Your task to perform on an android device: What's the weather? Image 0: 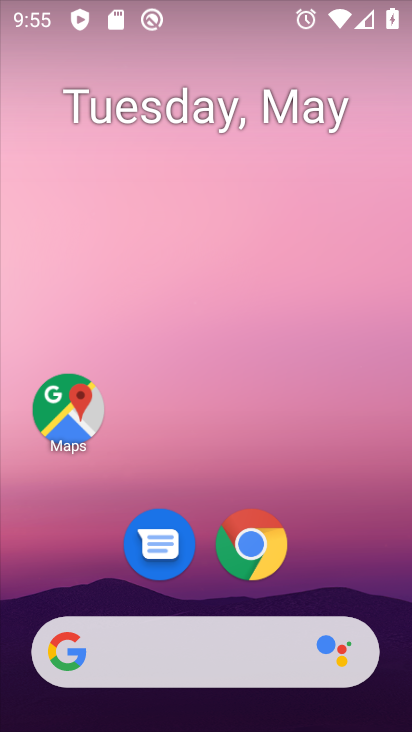
Step 0: press home button
Your task to perform on an android device: What's the weather? Image 1: 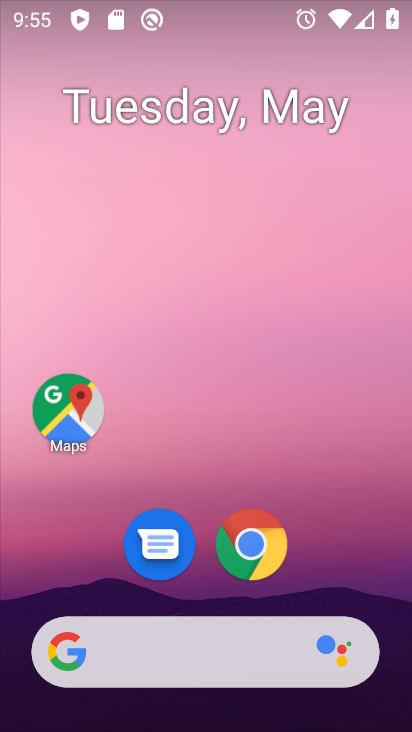
Step 1: drag from (355, 550) to (318, 175)
Your task to perform on an android device: What's the weather? Image 2: 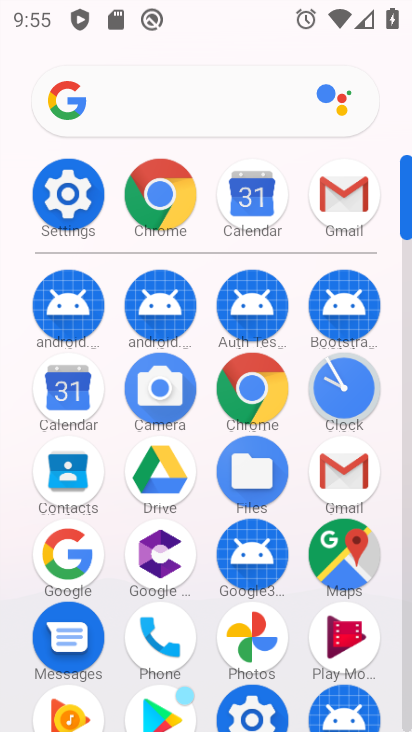
Step 2: click (165, 193)
Your task to perform on an android device: What's the weather? Image 3: 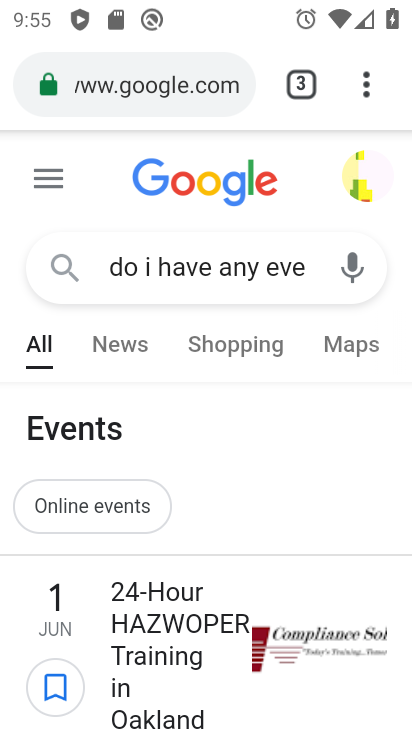
Step 3: click (158, 93)
Your task to perform on an android device: What's the weather? Image 4: 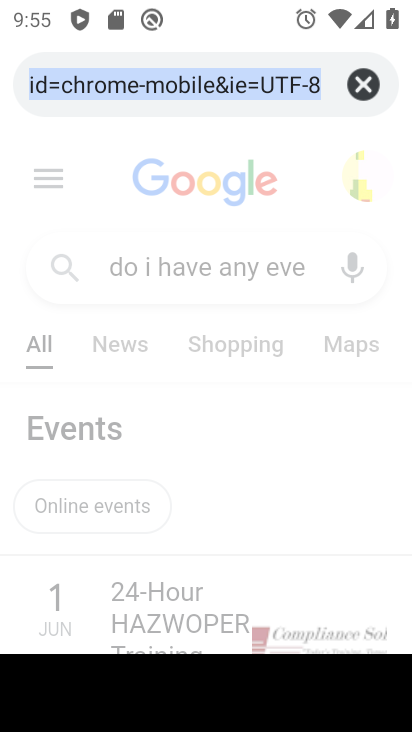
Step 4: click (362, 88)
Your task to perform on an android device: What's the weather? Image 5: 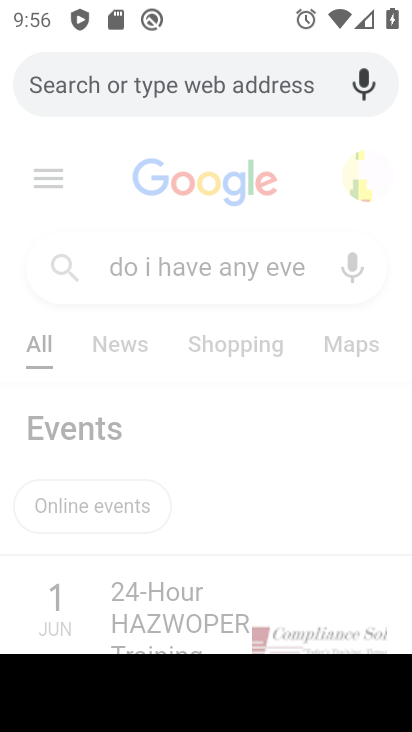
Step 5: click (277, 86)
Your task to perform on an android device: What's the weather? Image 6: 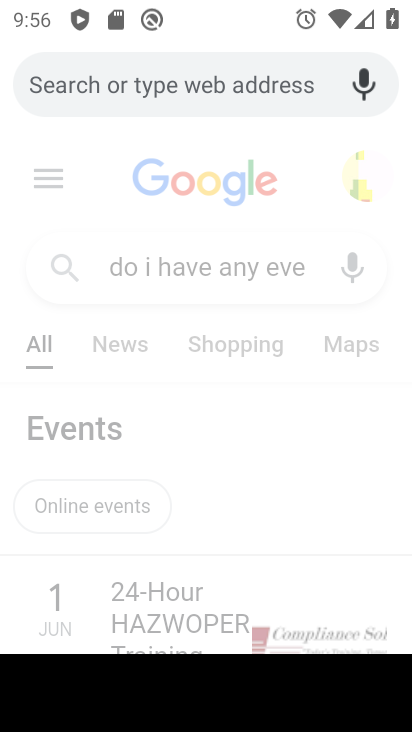
Step 6: type "what's the weather"
Your task to perform on an android device: What's the weather? Image 7: 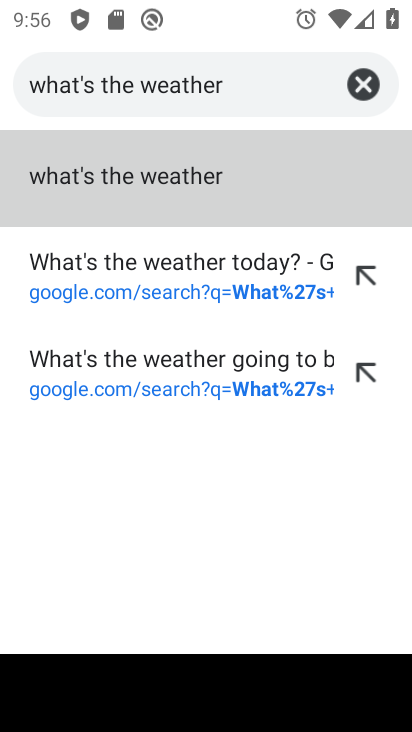
Step 7: click (162, 175)
Your task to perform on an android device: What's the weather? Image 8: 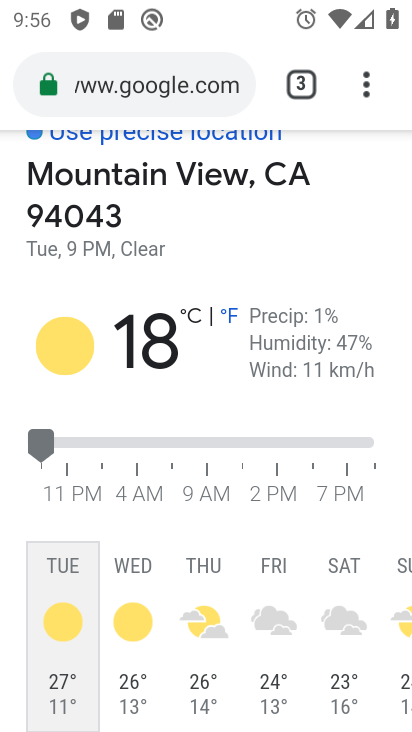
Step 8: task complete